Your task to perform on an android device: open app "Mercado Libre" (install if not already installed) and enter user name: "tolerating@yahoo.com" and password: "Kepler" Image 0: 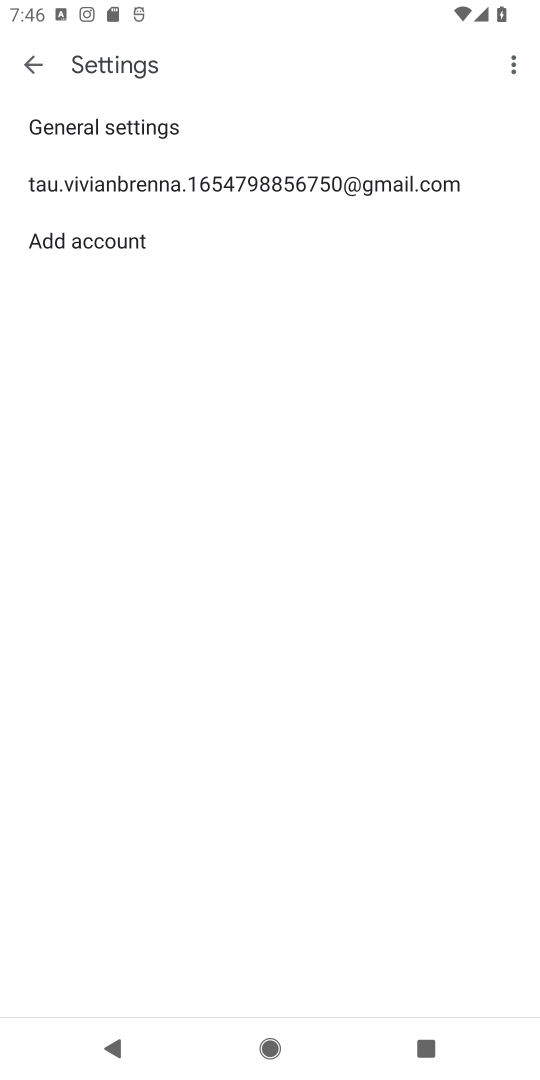
Step 0: press home button
Your task to perform on an android device: open app "Mercado Libre" (install if not already installed) and enter user name: "tolerating@yahoo.com" and password: "Kepler" Image 1: 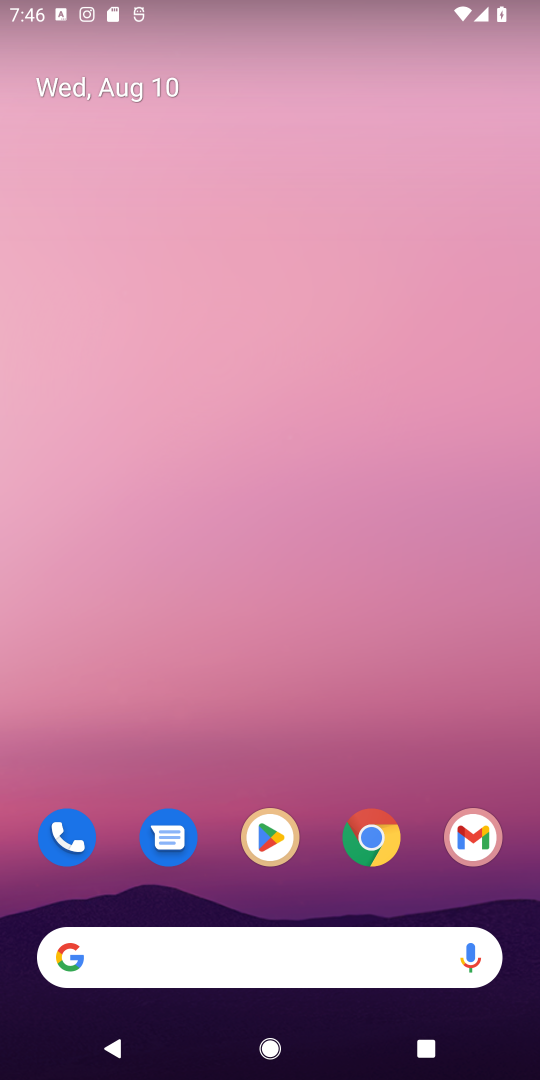
Step 1: click (263, 836)
Your task to perform on an android device: open app "Mercado Libre" (install if not already installed) and enter user name: "tolerating@yahoo.com" and password: "Kepler" Image 2: 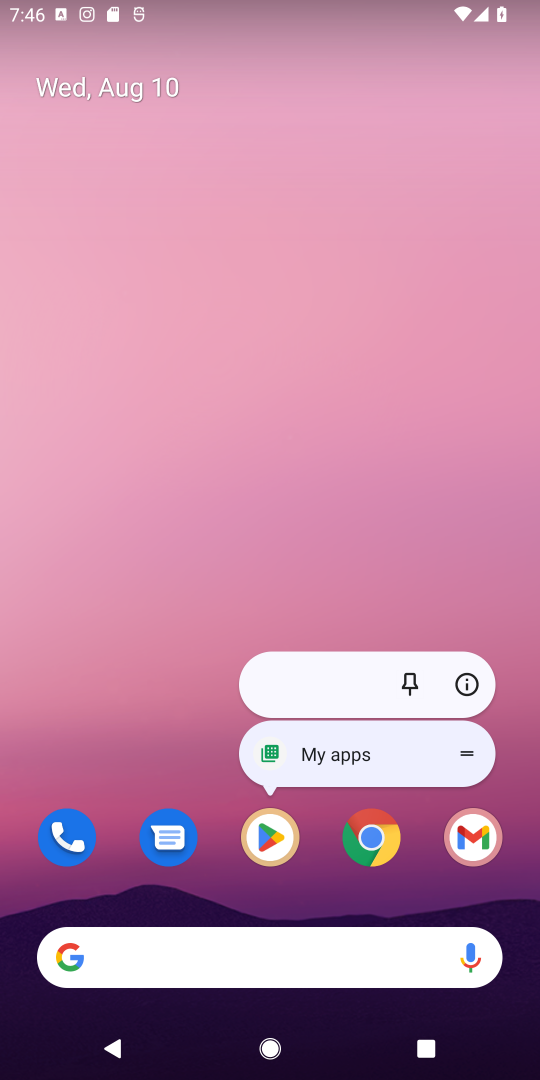
Step 2: click (269, 843)
Your task to perform on an android device: open app "Mercado Libre" (install if not already installed) and enter user name: "tolerating@yahoo.com" and password: "Kepler" Image 3: 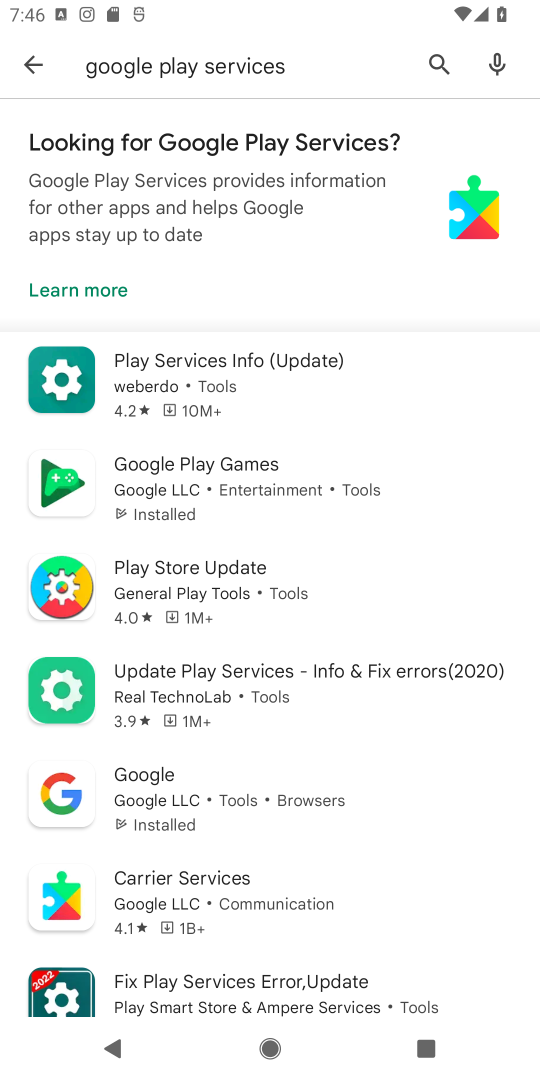
Step 3: click (440, 65)
Your task to perform on an android device: open app "Mercado Libre" (install if not already installed) and enter user name: "tolerating@yahoo.com" and password: "Kepler" Image 4: 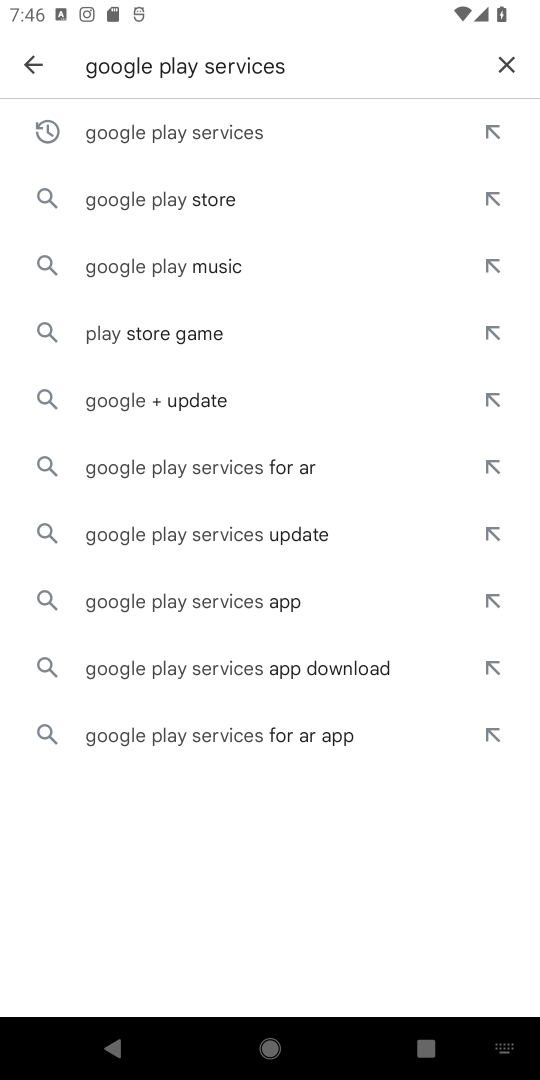
Step 4: click (497, 61)
Your task to perform on an android device: open app "Mercado Libre" (install if not already installed) and enter user name: "tolerating@yahoo.com" and password: "Kepler" Image 5: 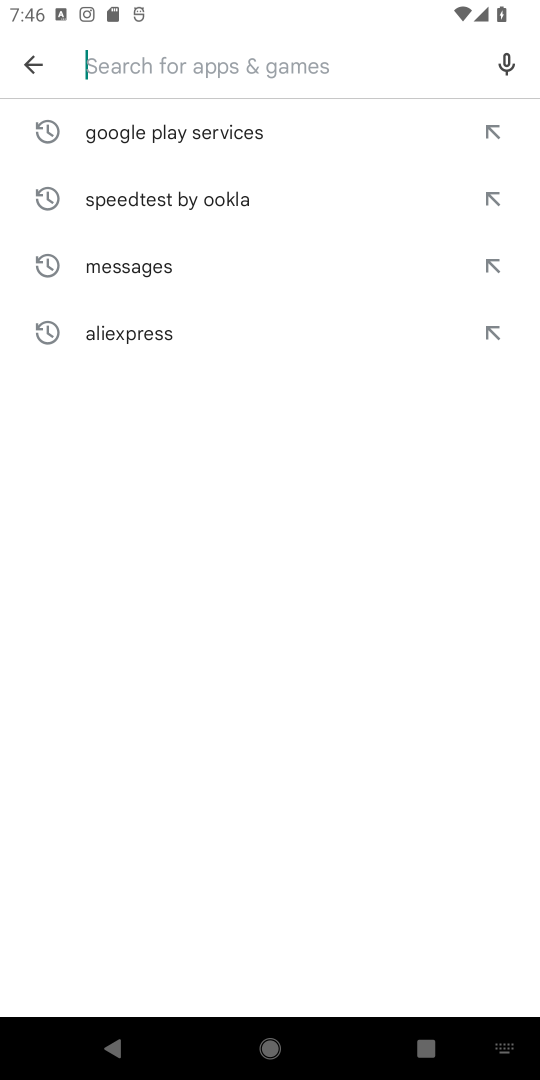
Step 5: type "Mercado Libre"
Your task to perform on an android device: open app "Mercado Libre" (install if not already installed) and enter user name: "tolerating@yahoo.com" and password: "Kepler" Image 6: 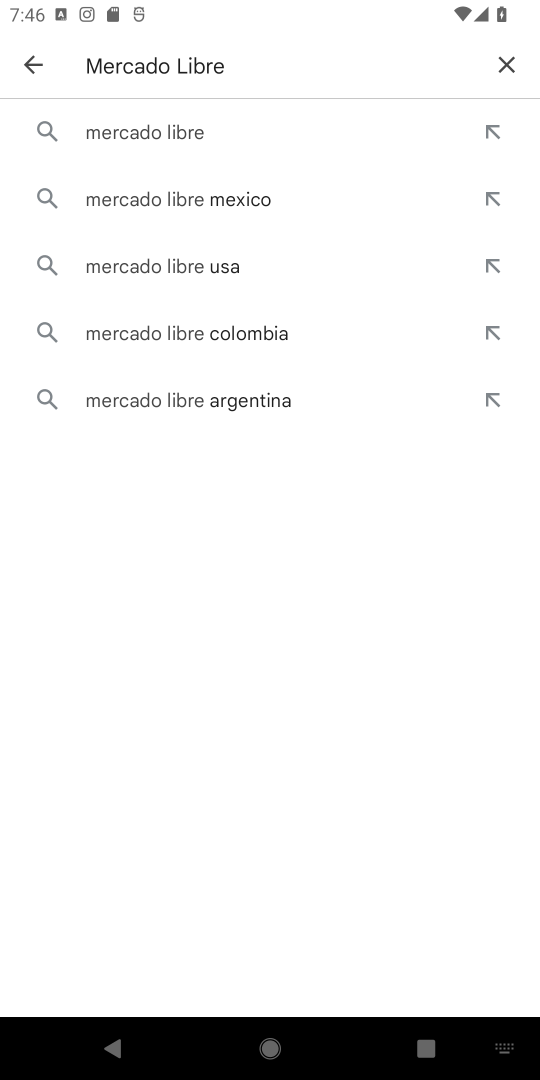
Step 6: click (172, 131)
Your task to perform on an android device: open app "Mercado Libre" (install if not already installed) and enter user name: "tolerating@yahoo.com" and password: "Kepler" Image 7: 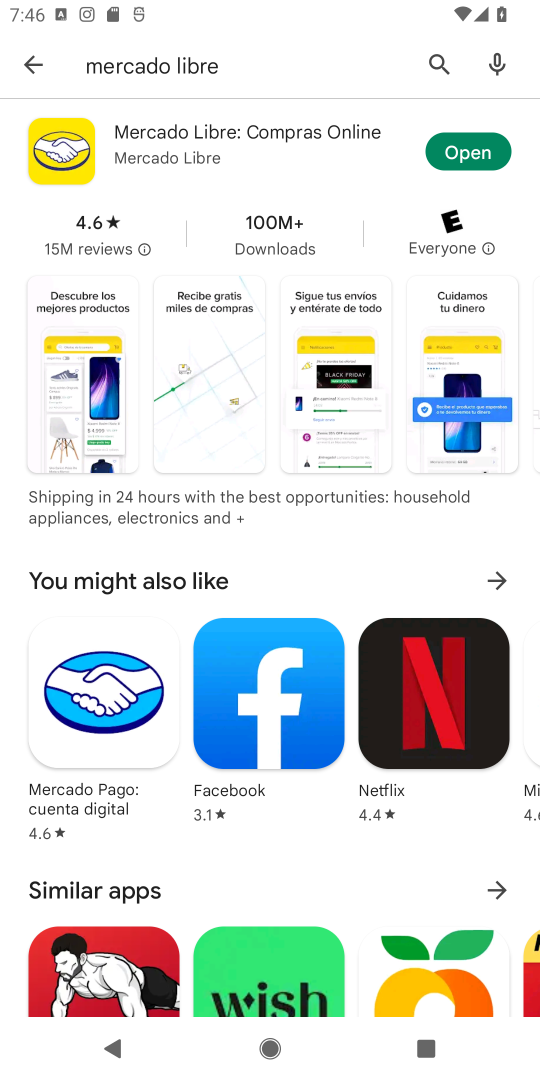
Step 7: click (462, 153)
Your task to perform on an android device: open app "Mercado Libre" (install if not already installed) and enter user name: "tolerating@yahoo.com" and password: "Kepler" Image 8: 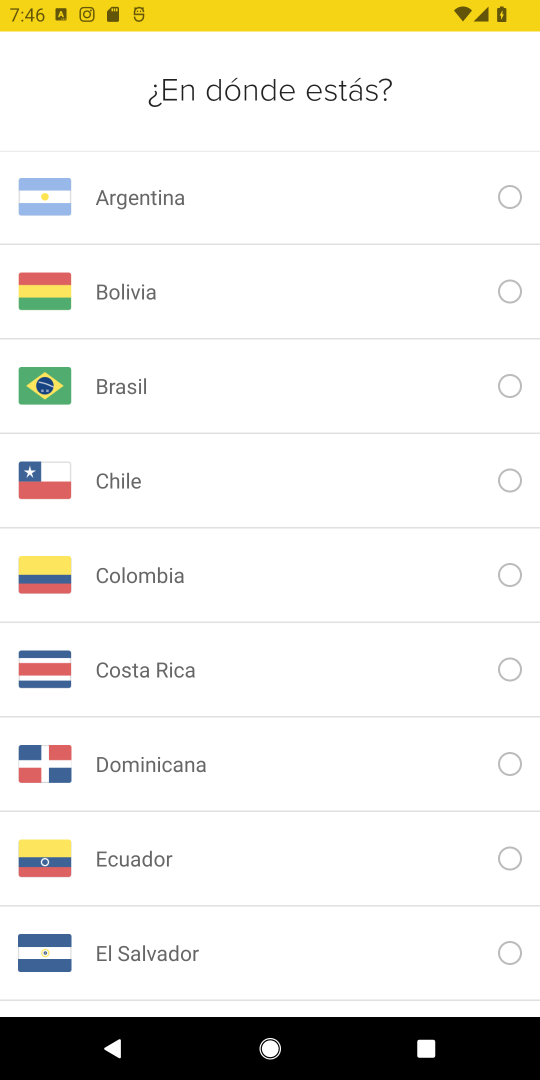
Step 8: task complete